Your task to perform on an android device: change keyboard looks Image 0: 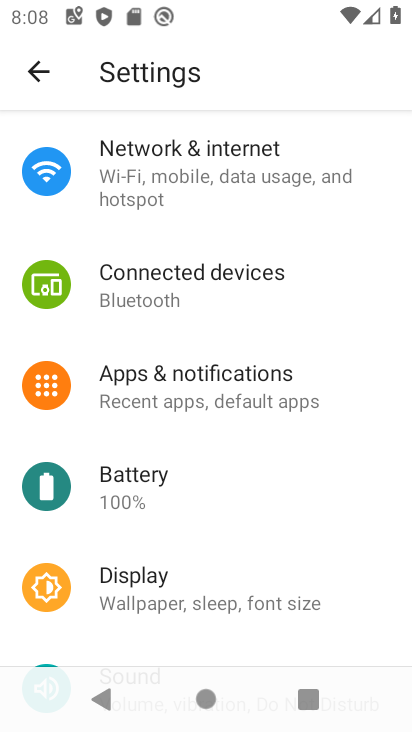
Step 0: press home button
Your task to perform on an android device: change keyboard looks Image 1: 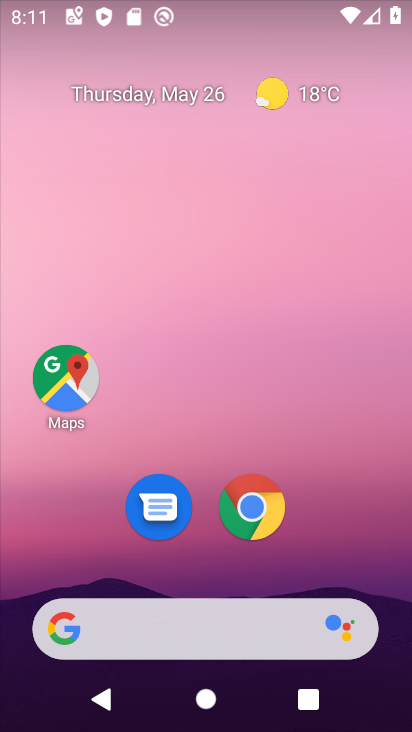
Step 1: drag from (330, 658) to (101, 74)
Your task to perform on an android device: change keyboard looks Image 2: 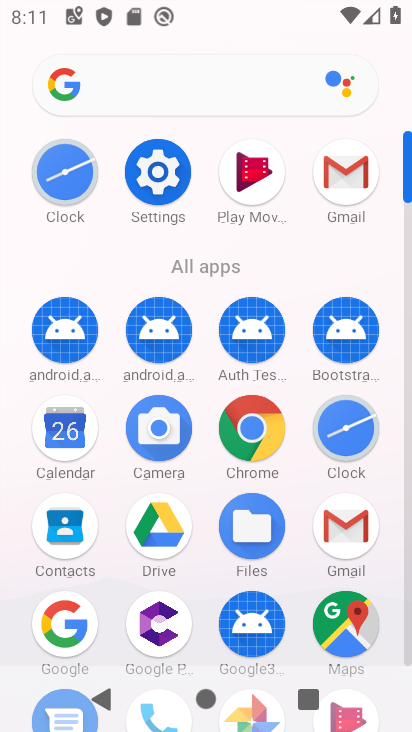
Step 2: click (182, 187)
Your task to perform on an android device: change keyboard looks Image 3: 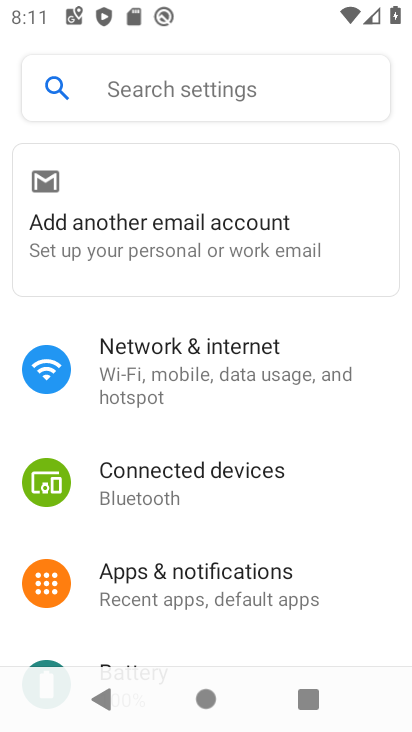
Step 3: click (142, 95)
Your task to perform on an android device: change keyboard looks Image 4: 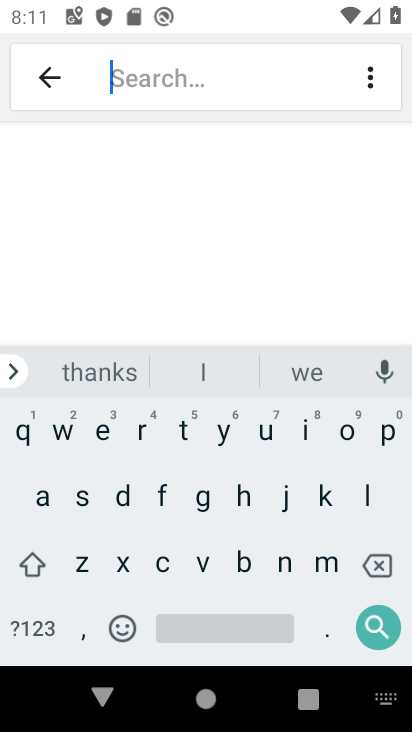
Step 4: click (326, 496)
Your task to perform on an android device: change keyboard looks Image 5: 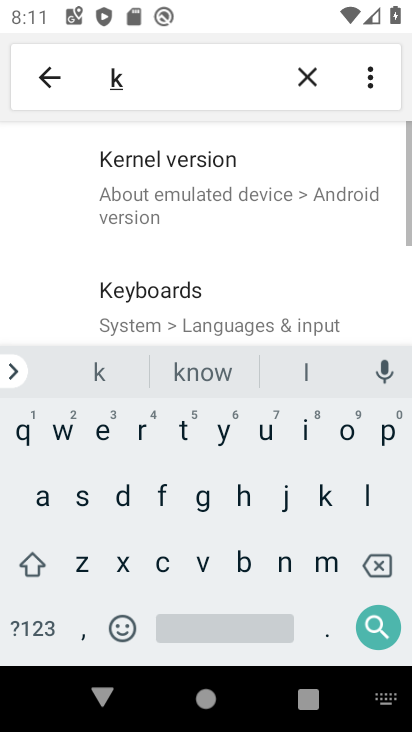
Step 5: click (105, 434)
Your task to perform on an android device: change keyboard looks Image 6: 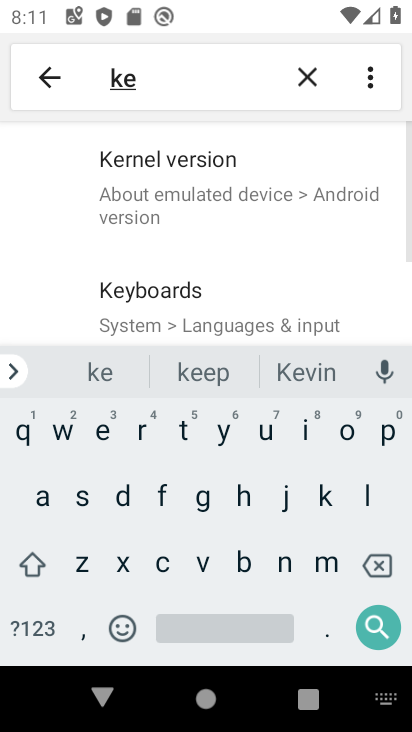
Step 6: click (178, 283)
Your task to perform on an android device: change keyboard looks Image 7: 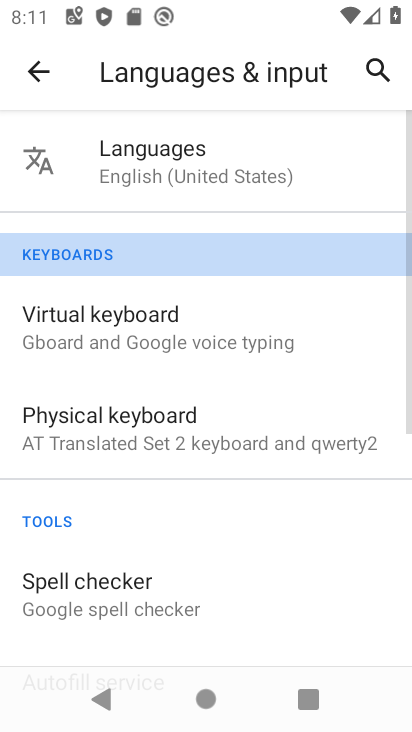
Step 7: click (168, 328)
Your task to perform on an android device: change keyboard looks Image 8: 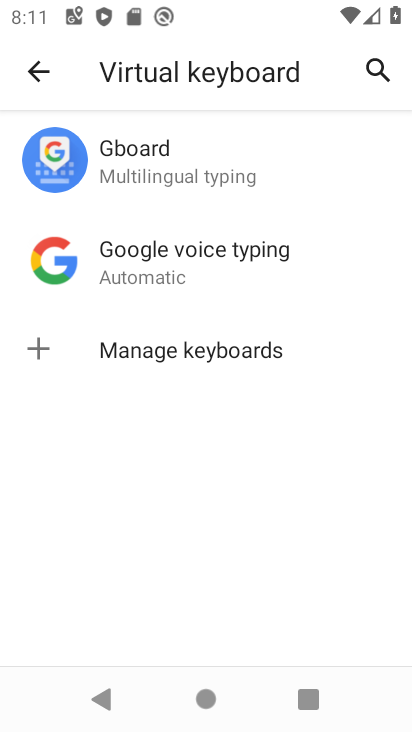
Step 8: click (118, 149)
Your task to perform on an android device: change keyboard looks Image 9: 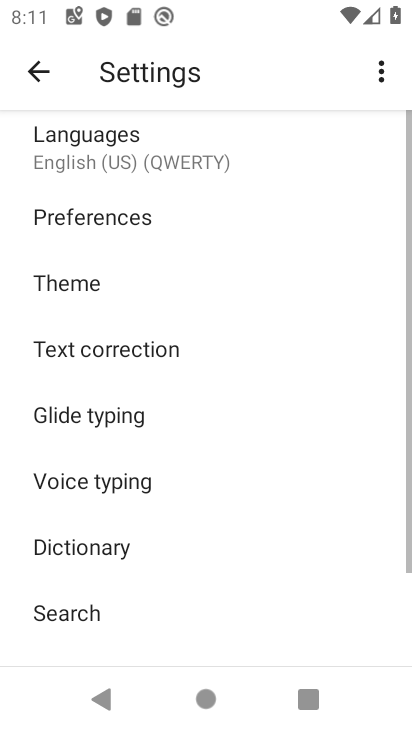
Step 9: click (105, 297)
Your task to perform on an android device: change keyboard looks Image 10: 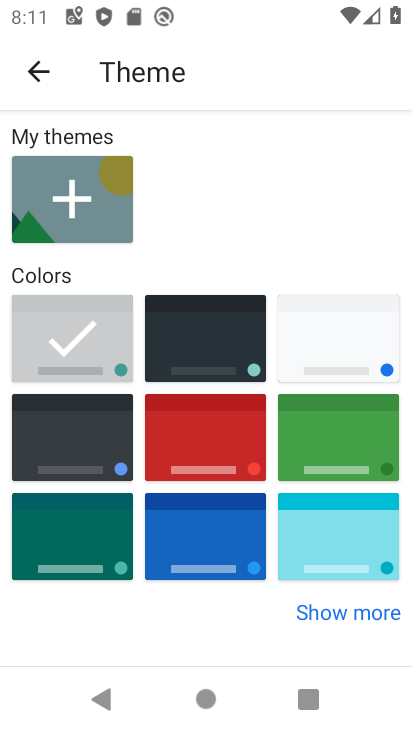
Step 10: click (220, 428)
Your task to perform on an android device: change keyboard looks Image 11: 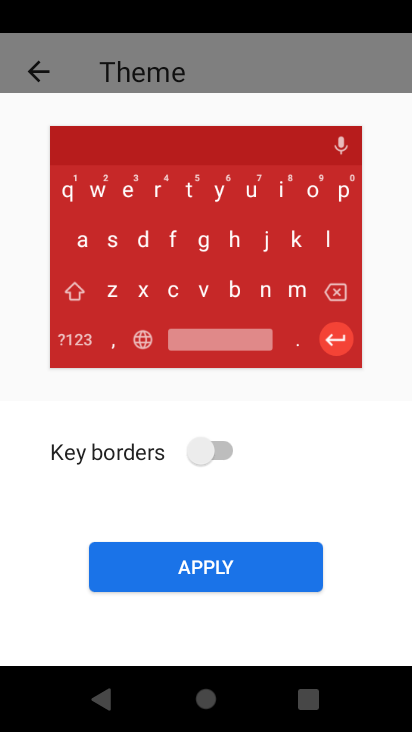
Step 11: click (209, 449)
Your task to perform on an android device: change keyboard looks Image 12: 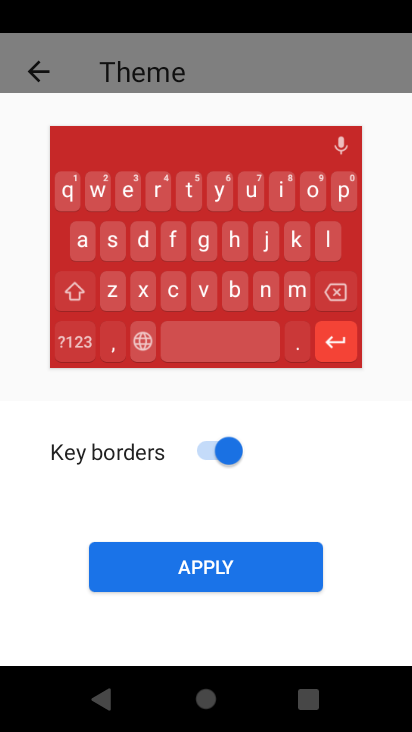
Step 12: click (259, 572)
Your task to perform on an android device: change keyboard looks Image 13: 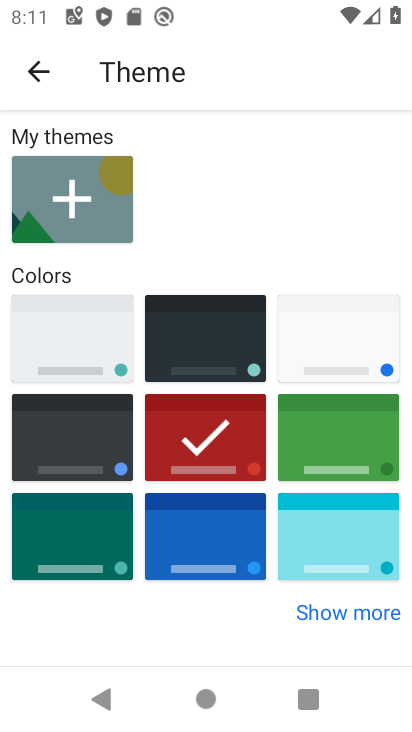
Step 13: task complete